Your task to perform on an android device: toggle priority inbox in the gmail app Image 0: 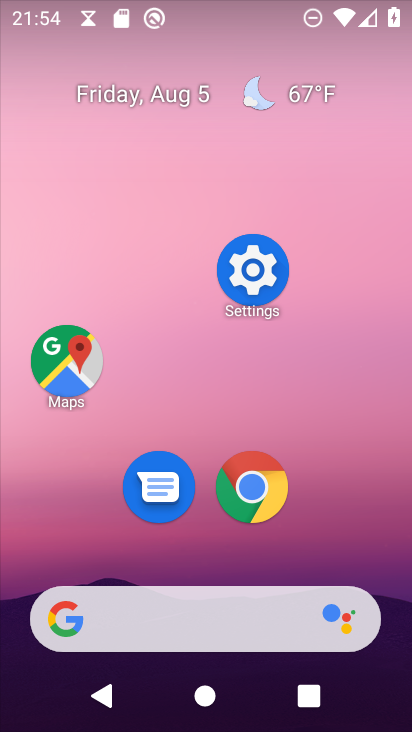
Step 0: drag from (251, 524) to (306, 216)
Your task to perform on an android device: toggle priority inbox in the gmail app Image 1: 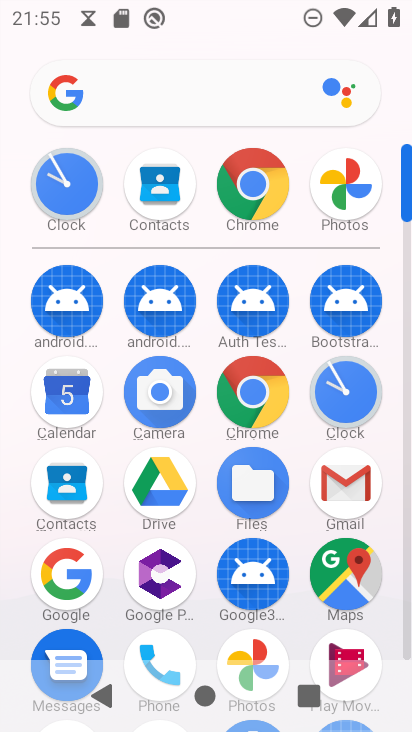
Step 1: click (343, 498)
Your task to perform on an android device: toggle priority inbox in the gmail app Image 2: 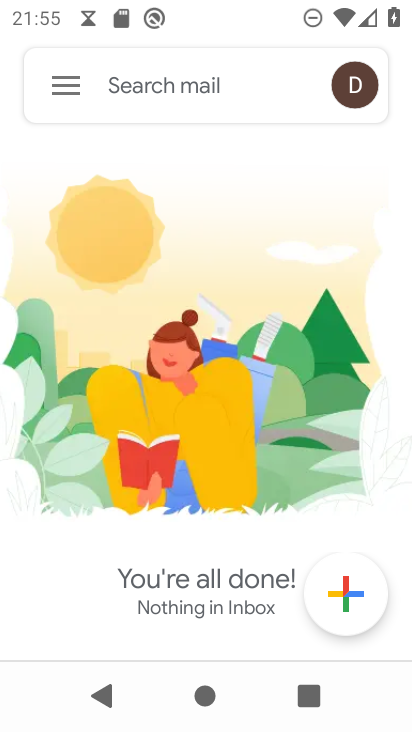
Step 2: click (74, 79)
Your task to perform on an android device: toggle priority inbox in the gmail app Image 3: 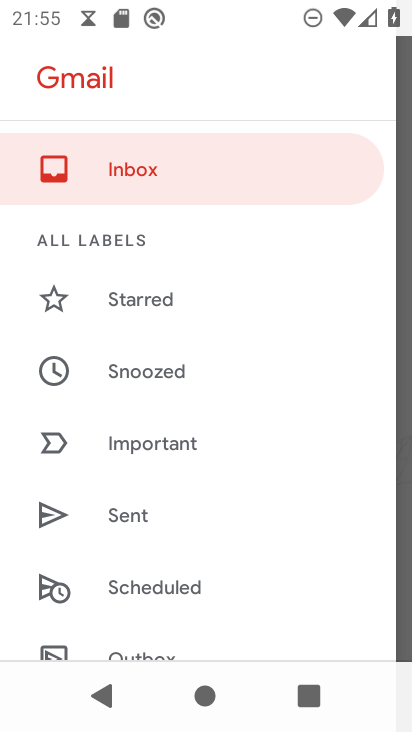
Step 3: drag from (191, 564) to (262, 262)
Your task to perform on an android device: toggle priority inbox in the gmail app Image 4: 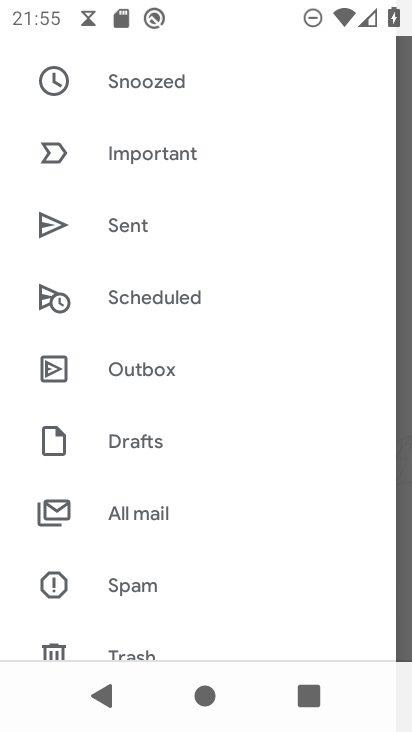
Step 4: drag from (233, 548) to (333, 93)
Your task to perform on an android device: toggle priority inbox in the gmail app Image 5: 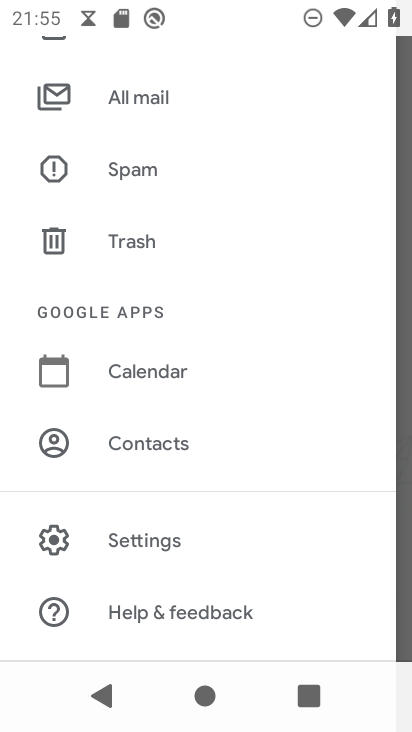
Step 5: click (170, 536)
Your task to perform on an android device: toggle priority inbox in the gmail app Image 6: 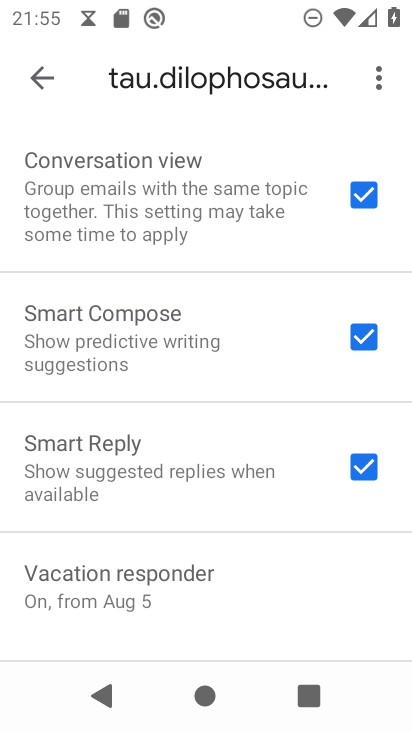
Step 6: drag from (283, 139) to (252, 629)
Your task to perform on an android device: toggle priority inbox in the gmail app Image 7: 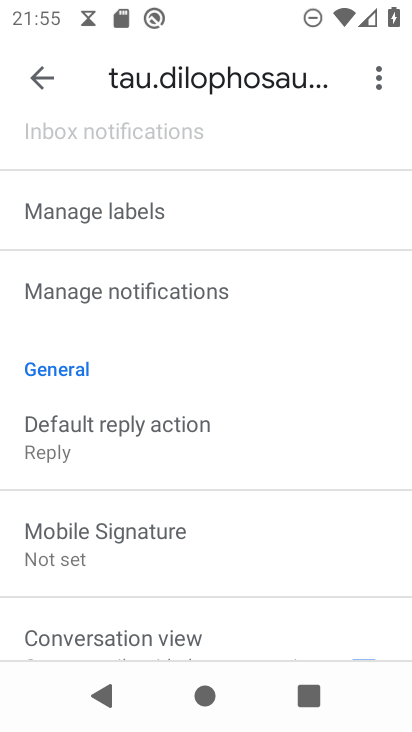
Step 7: drag from (290, 220) to (272, 570)
Your task to perform on an android device: toggle priority inbox in the gmail app Image 8: 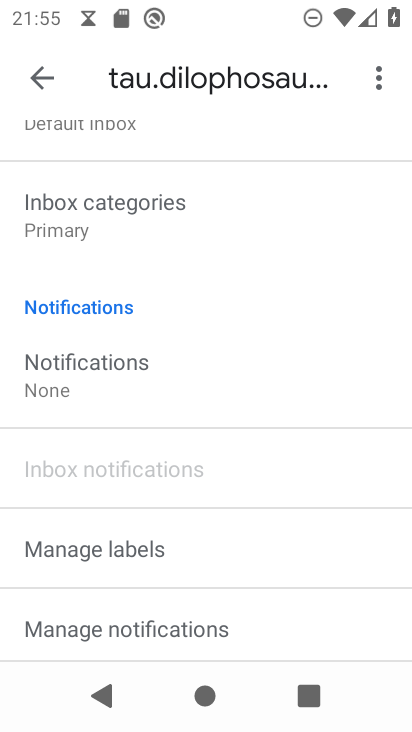
Step 8: drag from (295, 273) to (270, 590)
Your task to perform on an android device: toggle priority inbox in the gmail app Image 9: 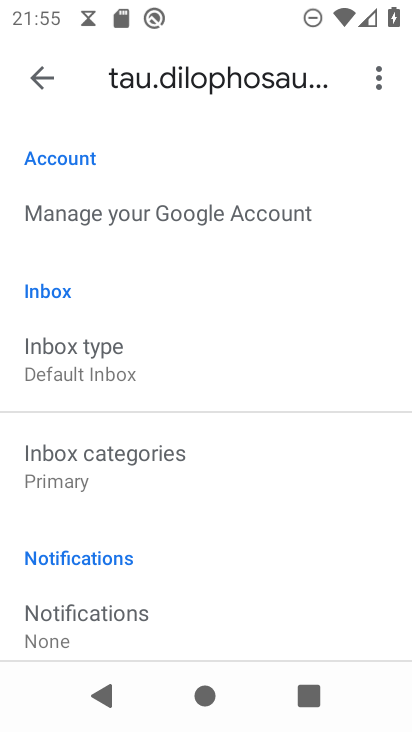
Step 9: click (122, 357)
Your task to perform on an android device: toggle priority inbox in the gmail app Image 10: 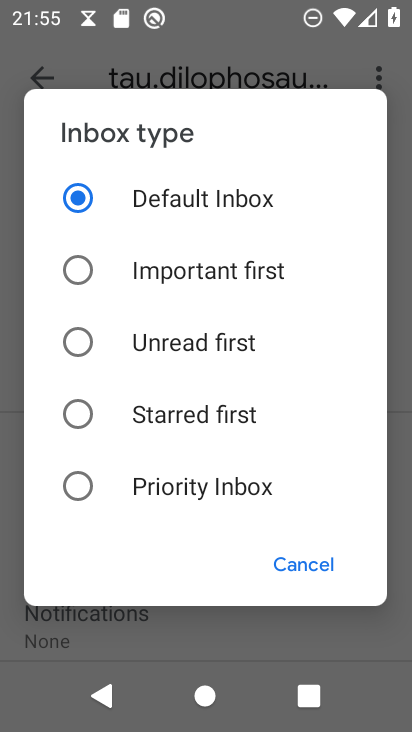
Step 10: click (79, 487)
Your task to perform on an android device: toggle priority inbox in the gmail app Image 11: 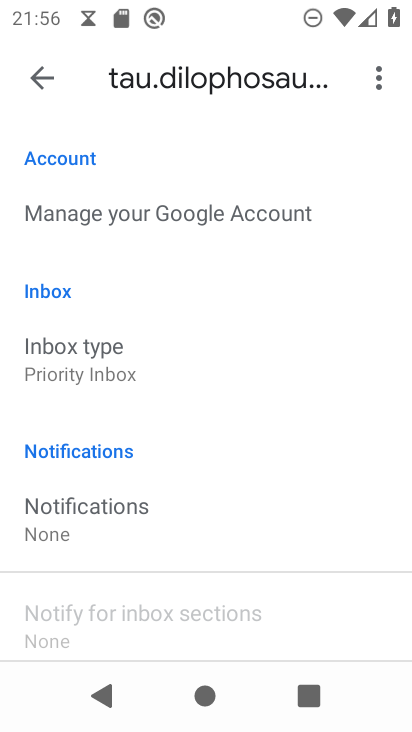
Step 11: task complete